Your task to perform on an android device: turn notification dots on Image 0: 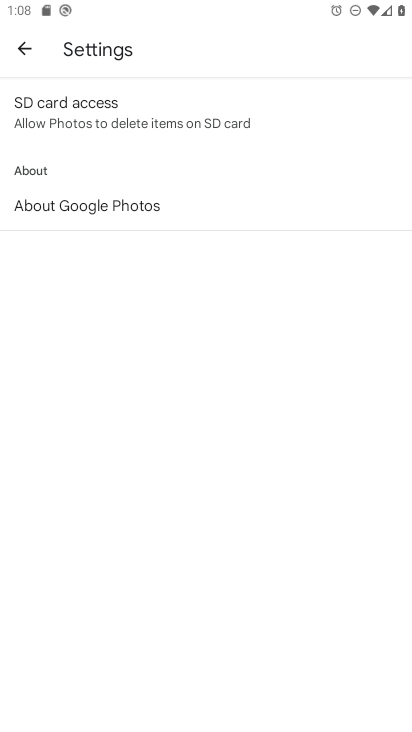
Step 0: press home button
Your task to perform on an android device: turn notification dots on Image 1: 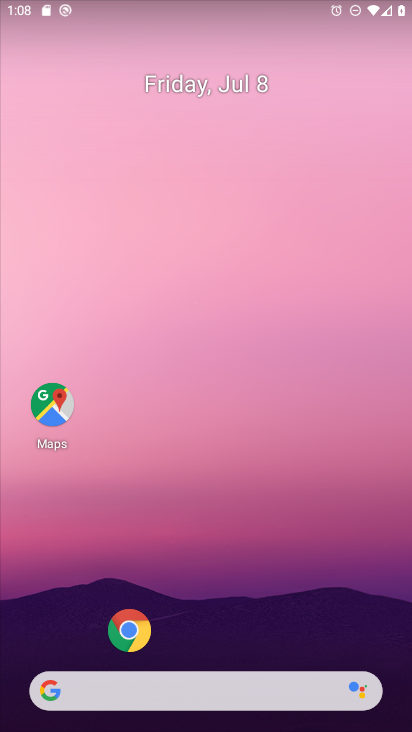
Step 1: drag from (311, 629) to (286, 29)
Your task to perform on an android device: turn notification dots on Image 2: 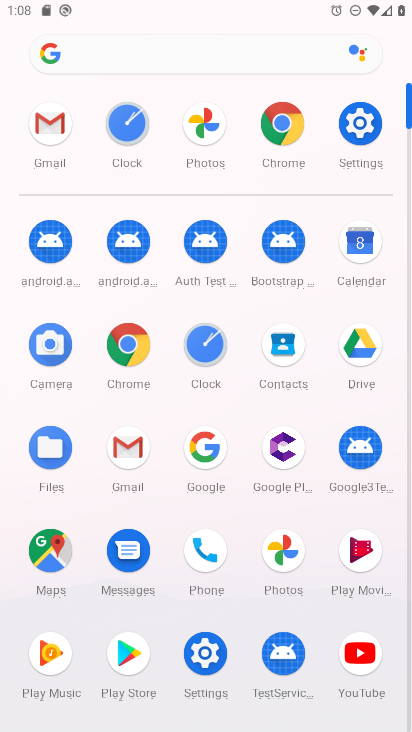
Step 2: click (354, 132)
Your task to perform on an android device: turn notification dots on Image 3: 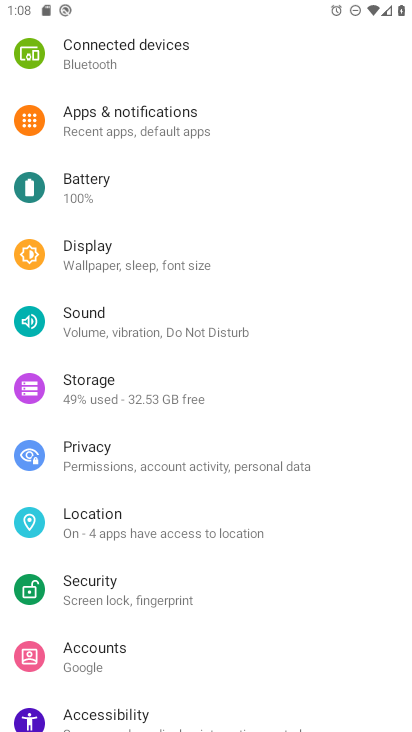
Step 3: click (135, 132)
Your task to perform on an android device: turn notification dots on Image 4: 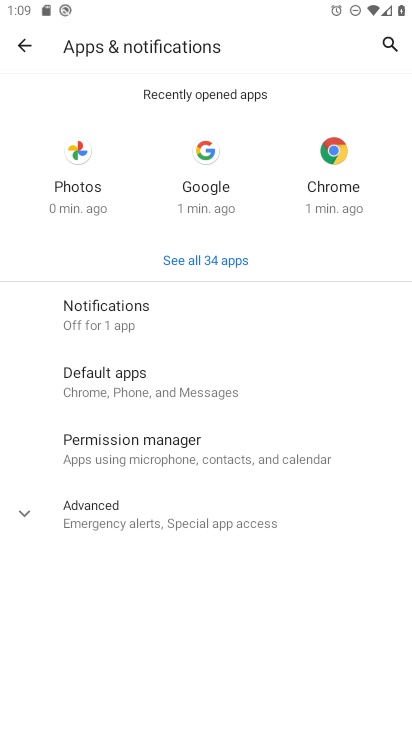
Step 4: click (138, 309)
Your task to perform on an android device: turn notification dots on Image 5: 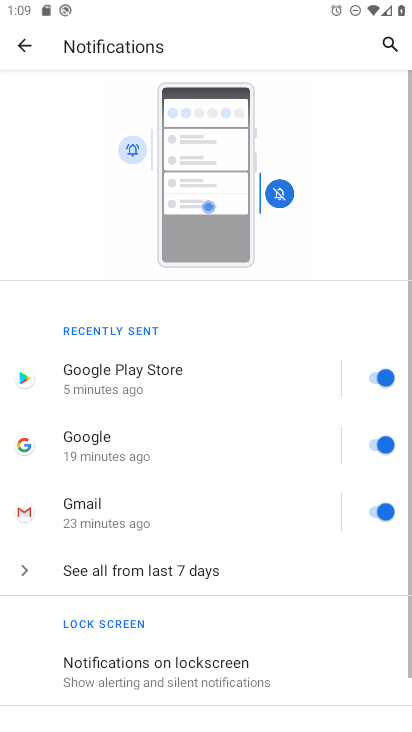
Step 5: drag from (231, 590) to (254, 229)
Your task to perform on an android device: turn notification dots on Image 6: 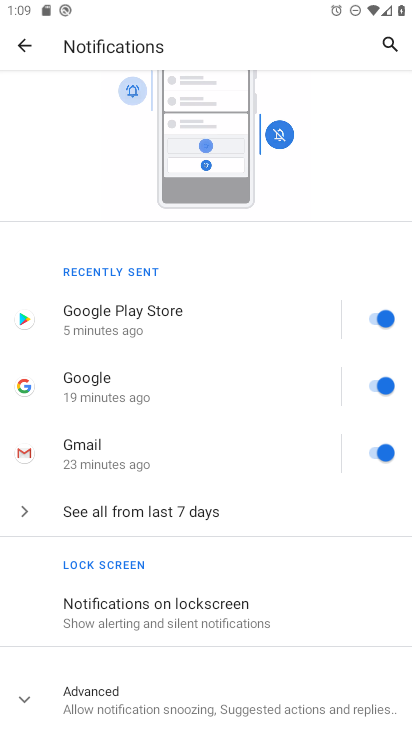
Step 6: click (162, 698)
Your task to perform on an android device: turn notification dots on Image 7: 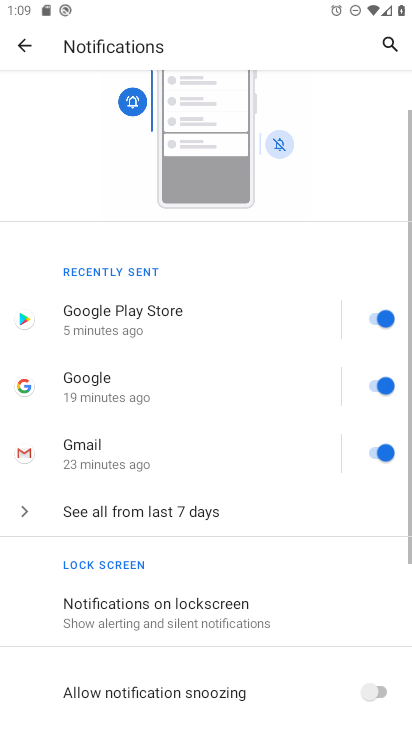
Step 7: task complete